Your task to perform on an android device: move an email to a new category in the gmail app Image 0: 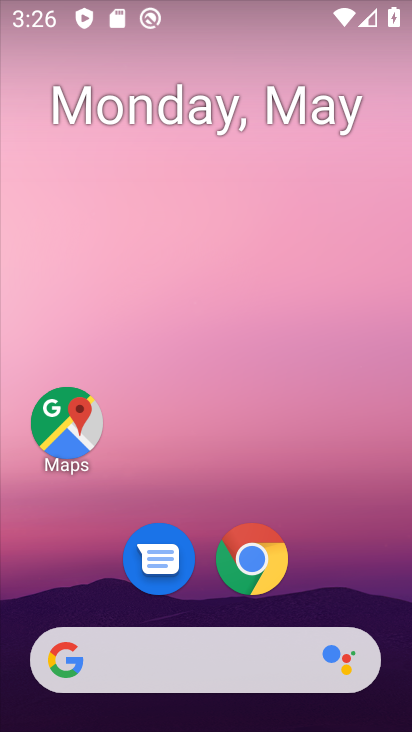
Step 0: drag from (222, 624) to (186, 83)
Your task to perform on an android device: move an email to a new category in the gmail app Image 1: 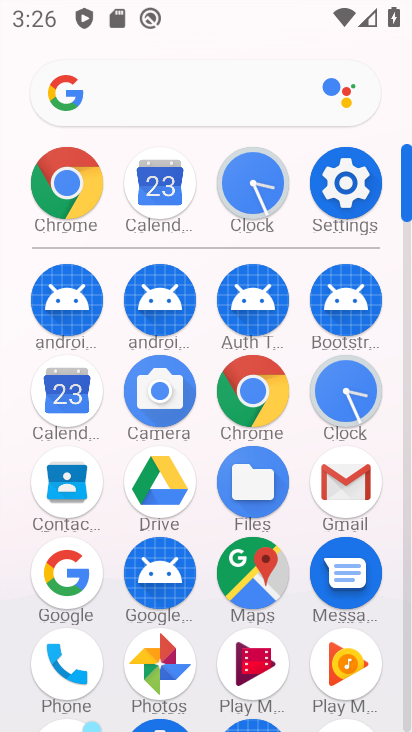
Step 1: click (349, 485)
Your task to perform on an android device: move an email to a new category in the gmail app Image 2: 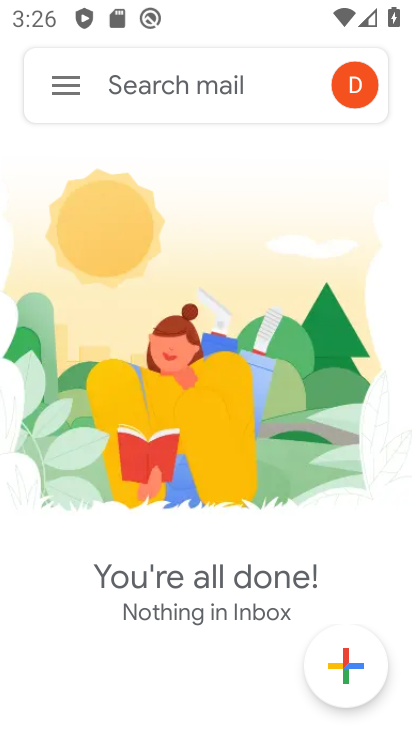
Step 2: click (53, 79)
Your task to perform on an android device: move an email to a new category in the gmail app Image 3: 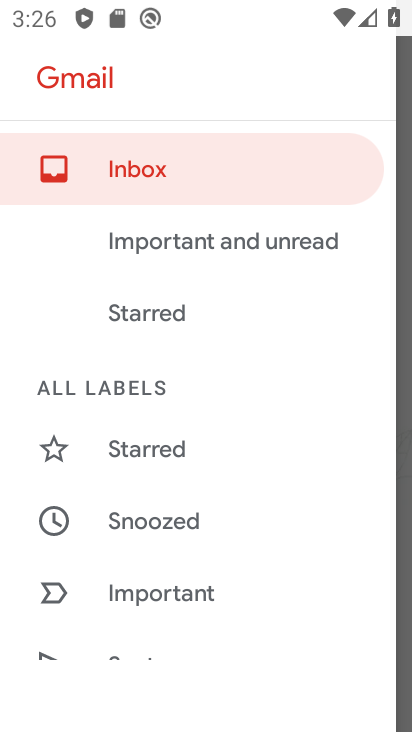
Step 3: click (166, 188)
Your task to perform on an android device: move an email to a new category in the gmail app Image 4: 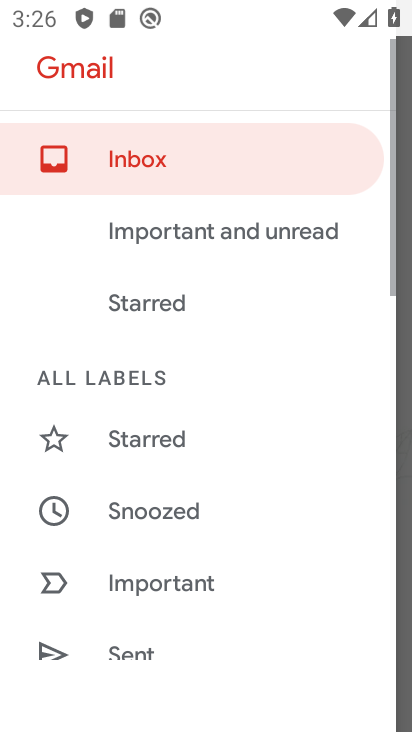
Step 4: drag from (235, 493) to (279, 52)
Your task to perform on an android device: move an email to a new category in the gmail app Image 5: 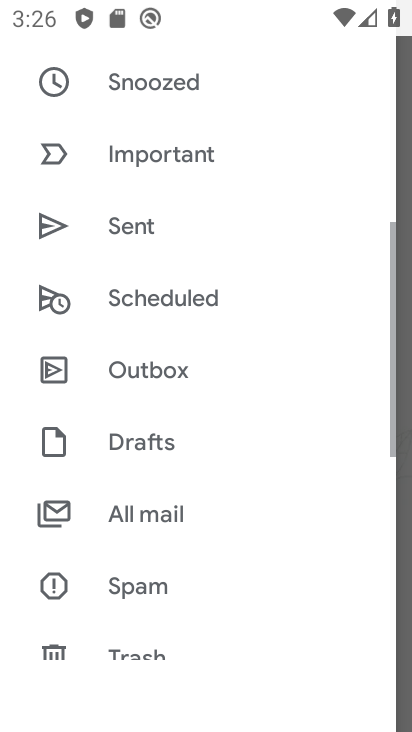
Step 5: drag from (233, 432) to (198, 81)
Your task to perform on an android device: move an email to a new category in the gmail app Image 6: 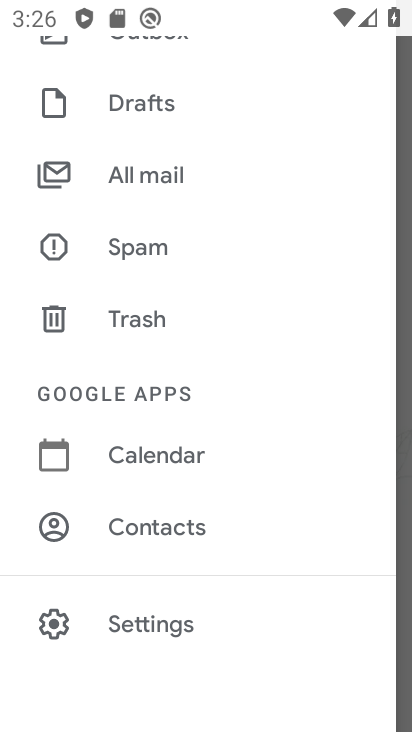
Step 6: click (145, 173)
Your task to perform on an android device: move an email to a new category in the gmail app Image 7: 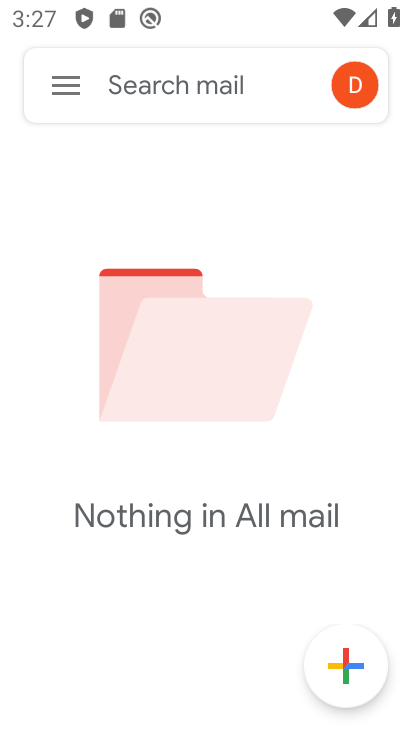
Step 7: task complete